Your task to perform on an android device: Open Youtube and go to the subscriptions tab Image 0: 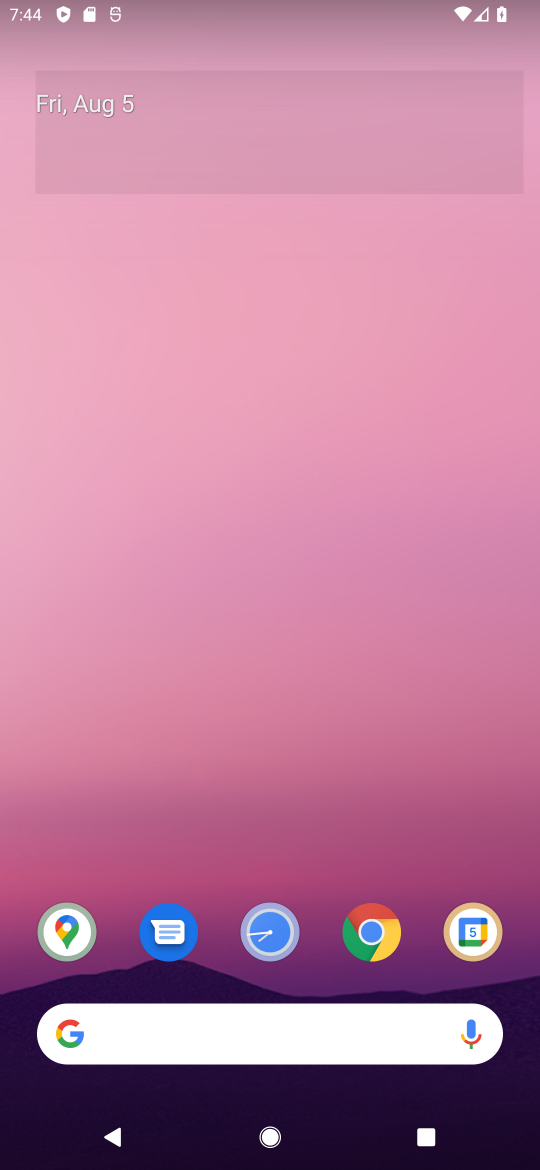
Step 0: drag from (345, 798) to (383, 35)
Your task to perform on an android device: Open Youtube and go to the subscriptions tab Image 1: 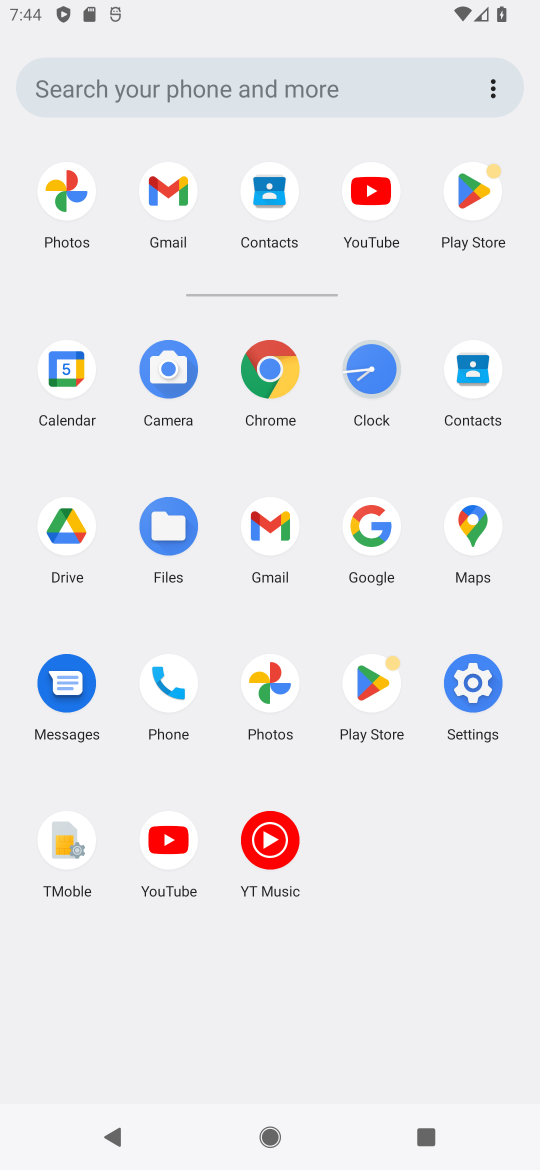
Step 1: click (172, 825)
Your task to perform on an android device: Open Youtube and go to the subscriptions tab Image 2: 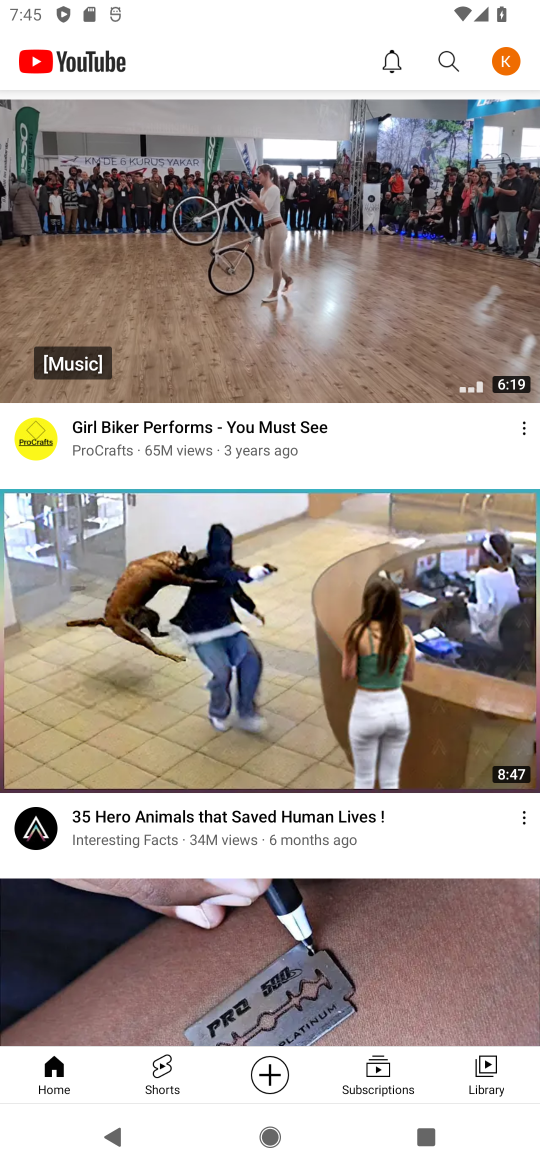
Step 2: click (386, 1067)
Your task to perform on an android device: Open Youtube and go to the subscriptions tab Image 3: 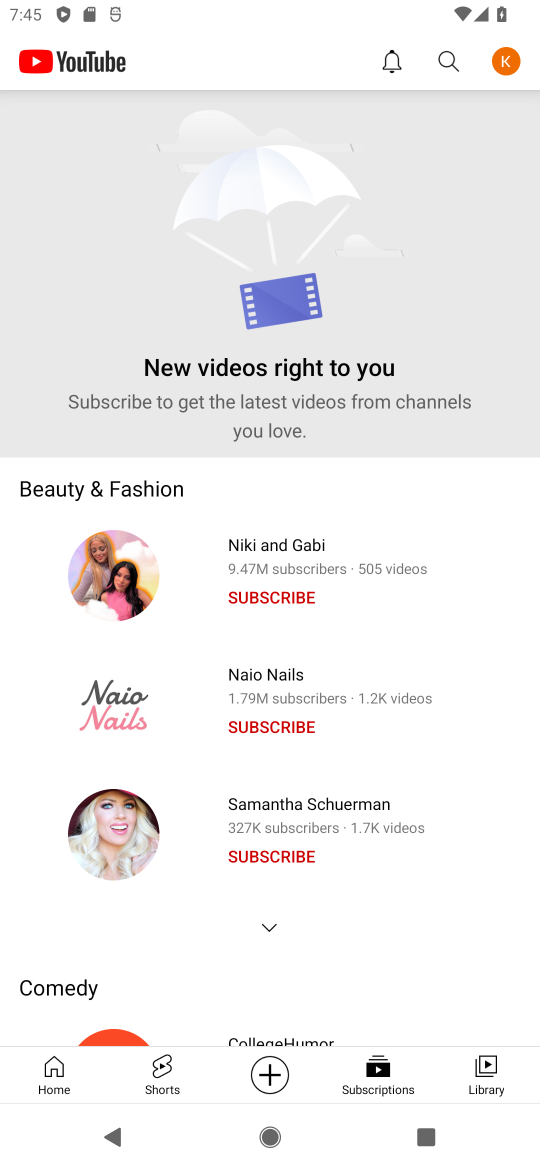
Step 3: task complete